Your task to perform on an android device: What is the news today? Image 0: 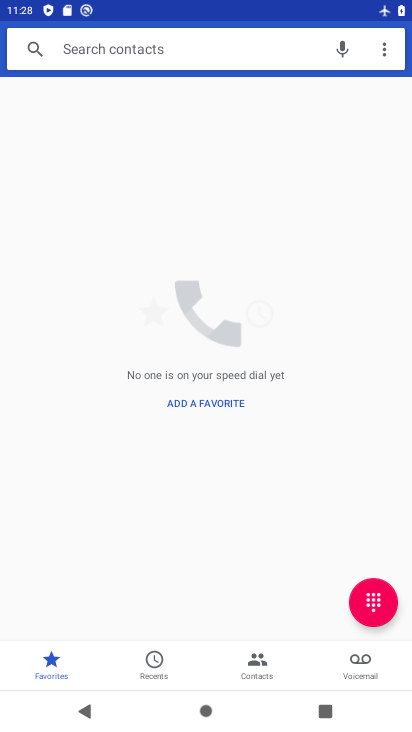
Step 0: click (202, 668)
Your task to perform on an android device: What is the news today? Image 1: 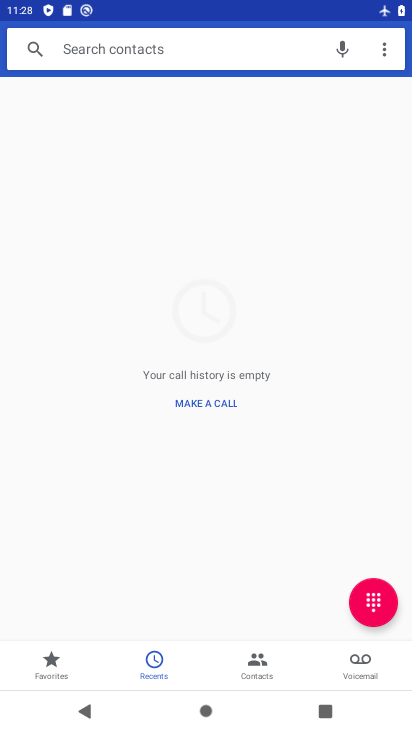
Step 1: press home button
Your task to perform on an android device: What is the news today? Image 2: 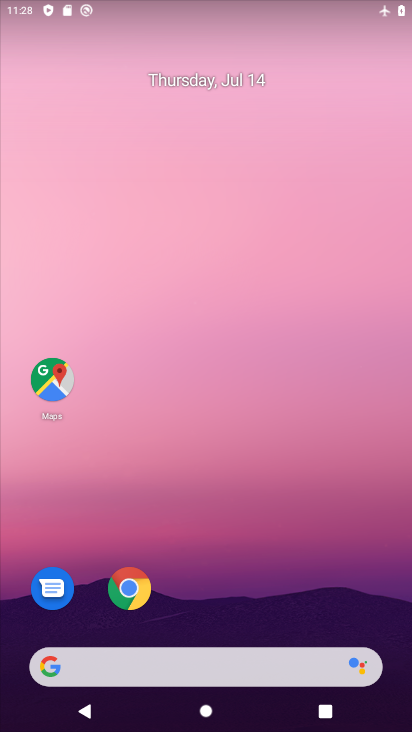
Step 2: click (187, 666)
Your task to perform on an android device: What is the news today? Image 3: 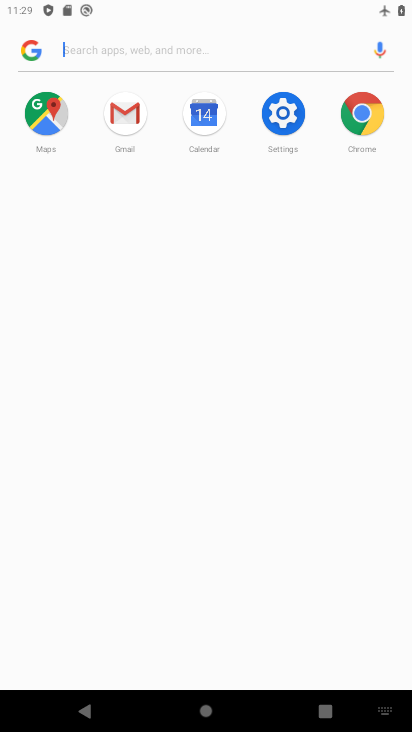
Step 3: type "news today"
Your task to perform on an android device: What is the news today? Image 4: 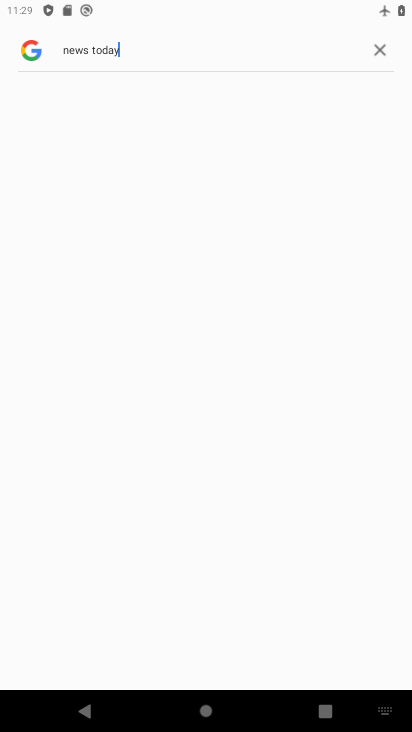
Step 4: task complete